Your task to perform on an android device: toggle location history Image 0: 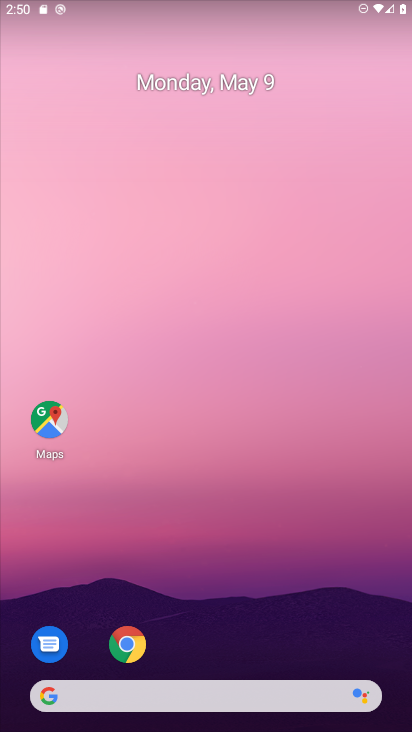
Step 0: drag from (257, 585) to (255, 87)
Your task to perform on an android device: toggle location history Image 1: 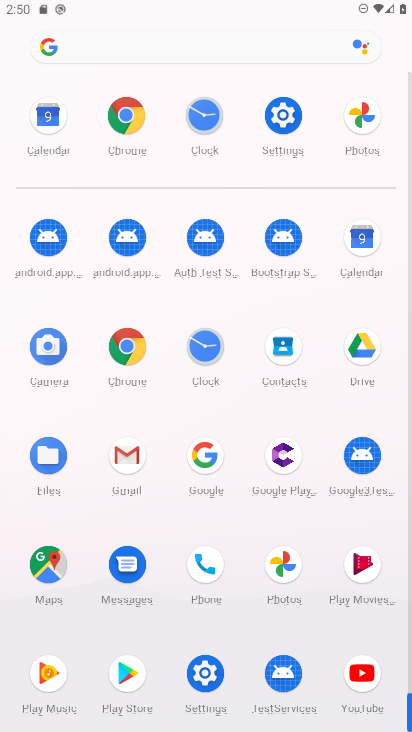
Step 1: click (295, 145)
Your task to perform on an android device: toggle location history Image 2: 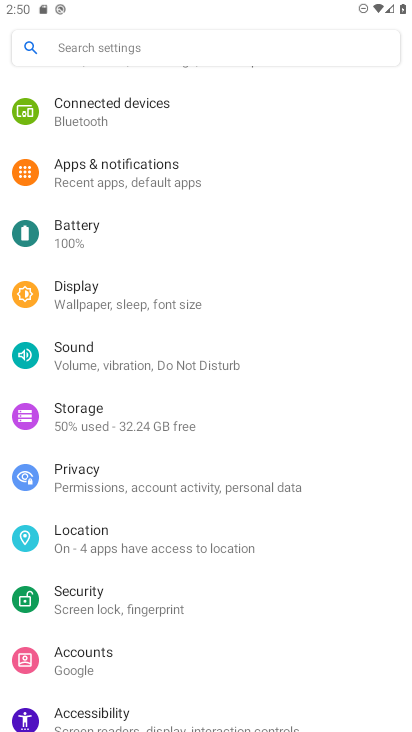
Step 2: drag from (150, 230) to (106, 535)
Your task to perform on an android device: toggle location history Image 3: 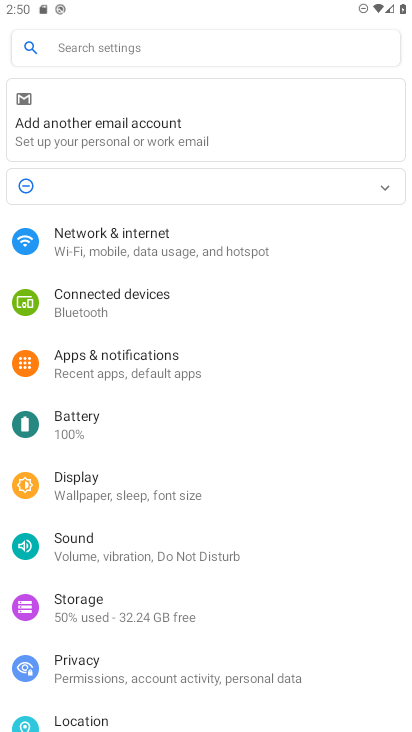
Step 3: drag from (55, 673) to (66, 302)
Your task to perform on an android device: toggle location history Image 4: 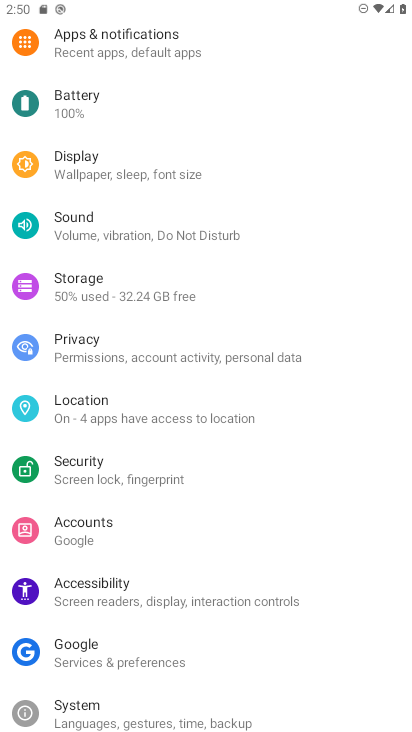
Step 4: click (141, 422)
Your task to perform on an android device: toggle location history Image 5: 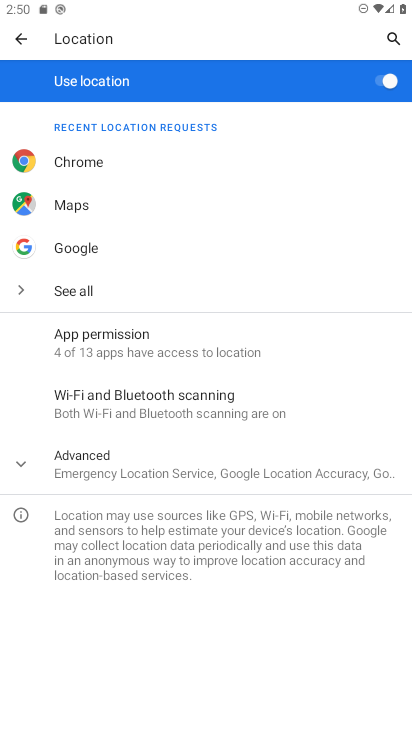
Step 5: click (80, 470)
Your task to perform on an android device: toggle location history Image 6: 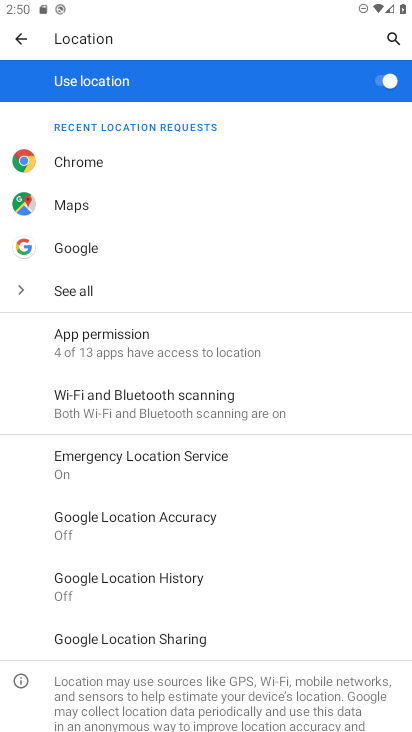
Step 6: click (153, 589)
Your task to perform on an android device: toggle location history Image 7: 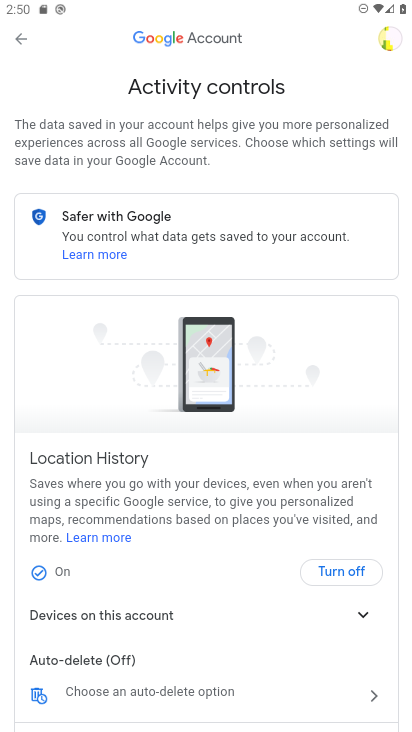
Step 7: click (348, 577)
Your task to perform on an android device: toggle location history Image 8: 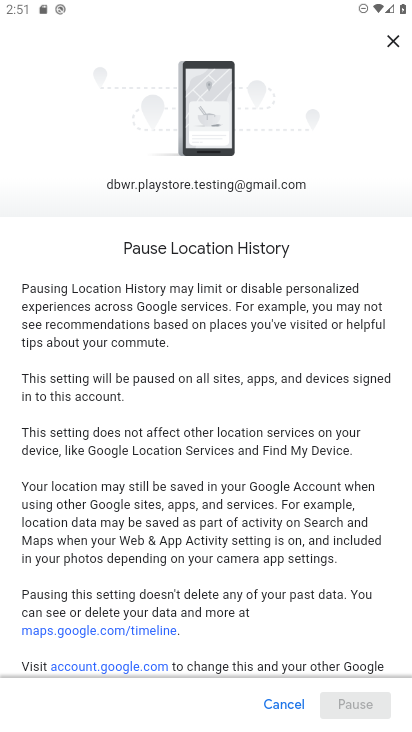
Step 8: drag from (265, 287) to (295, 206)
Your task to perform on an android device: toggle location history Image 9: 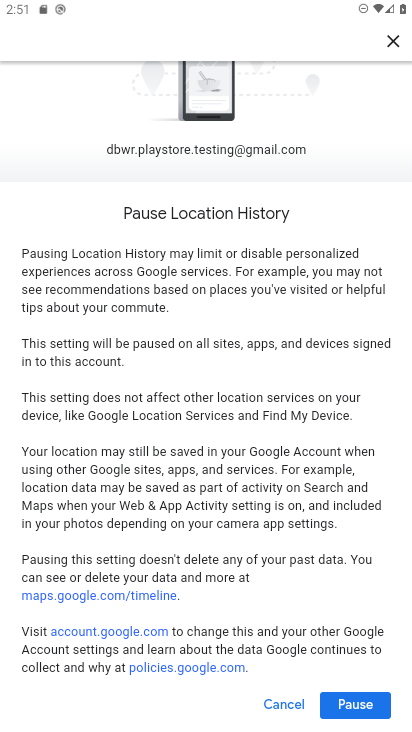
Step 9: click (358, 708)
Your task to perform on an android device: toggle location history Image 10: 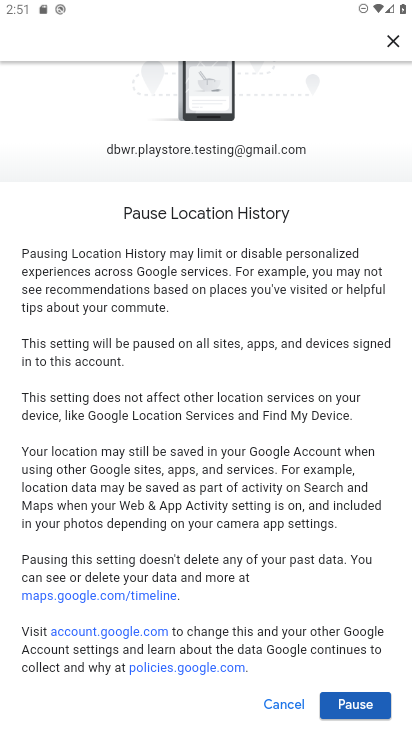
Step 10: click (349, 717)
Your task to perform on an android device: toggle location history Image 11: 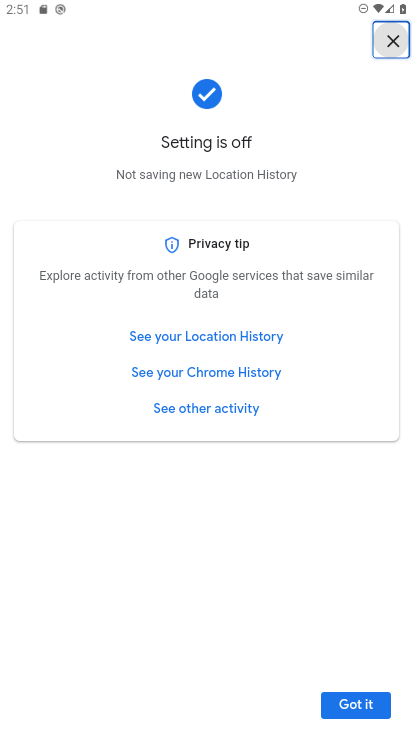
Step 11: click (355, 715)
Your task to perform on an android device: toggle location history Image 12: 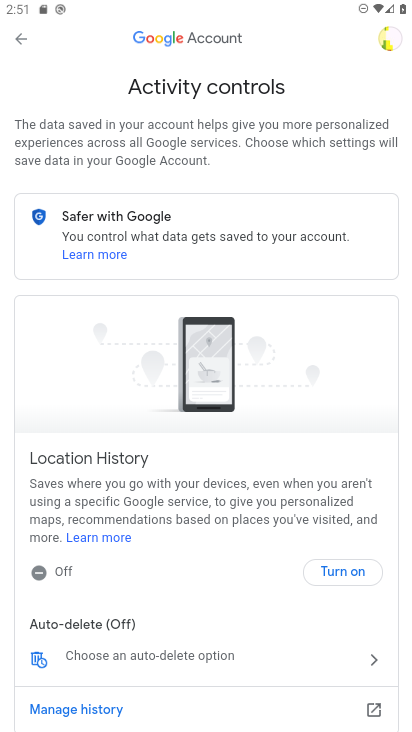
Step 12: task complete